Your task to perform on an android device: Open settings on Google Maps Image 0: 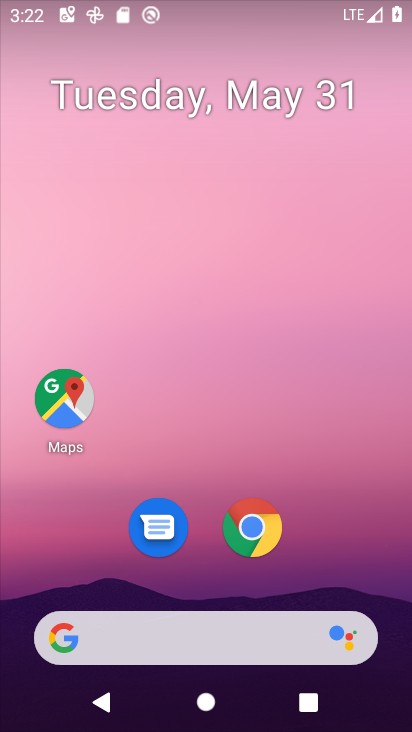
Step 0: drag from (345, 549) to (382, 113)
Your task to perform on an android device: Open settings on Google Maps Image 1: 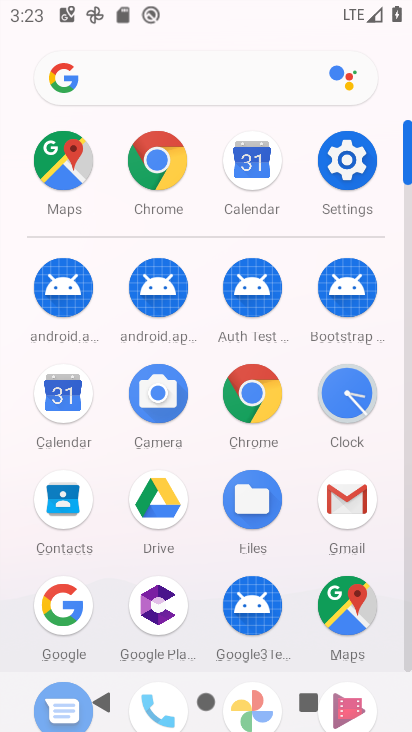
Step 1: click (366, 615)
Your task to perform on an android device: Open settings on Google Maps Image 2: 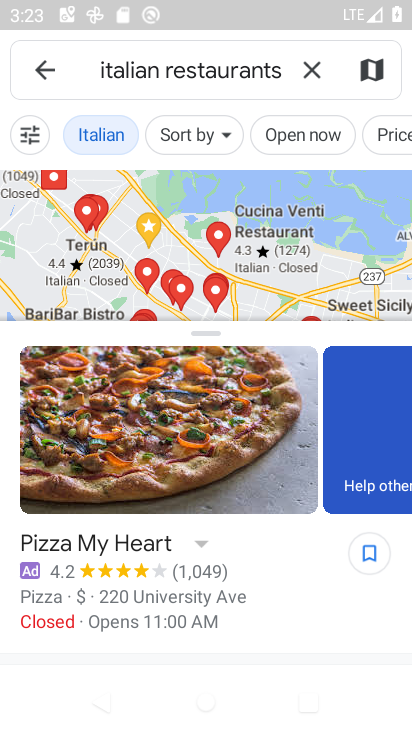
Step 2: task complete